Your task to perform on an android device: When is my next appointment? Image 0: 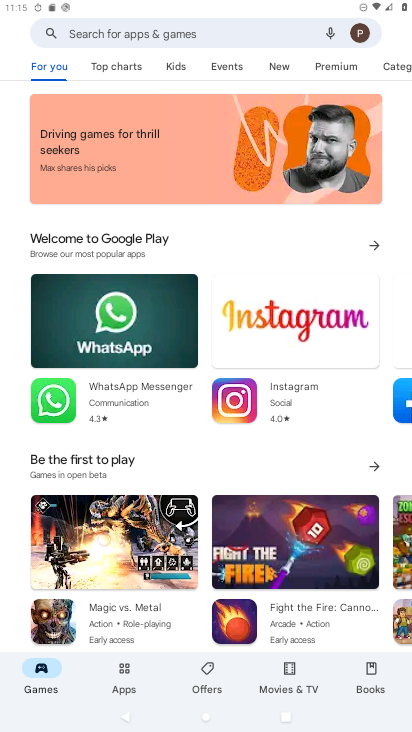
Step 0: press home button
Your task to perform on an android device: When is my next appointment? Image 1: 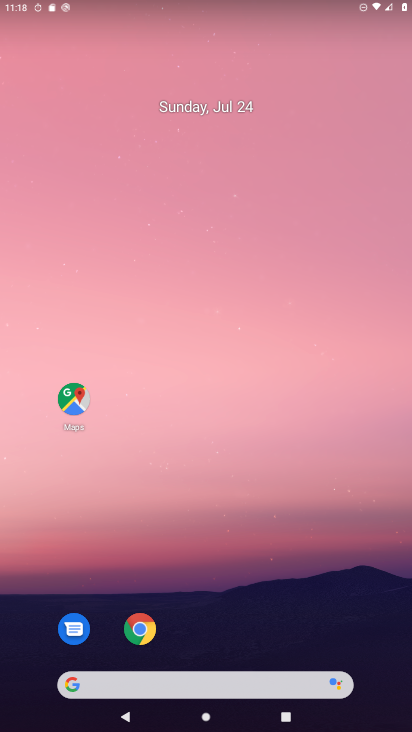
Step 1: drag from (247, 606) to (284, 79)
Your task to perform on an android device: When is my next appointment? Image 2: 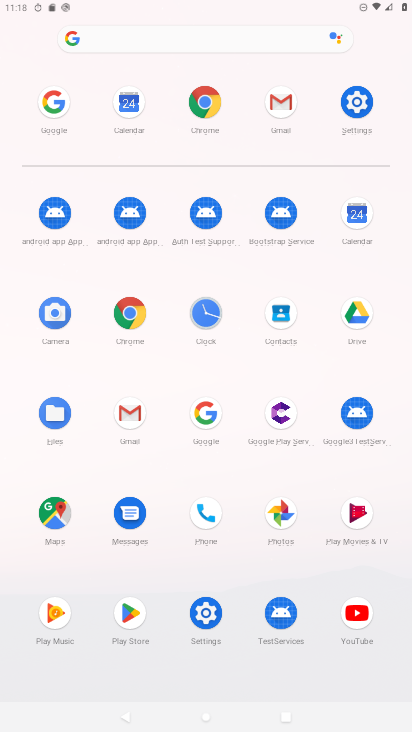
Step 2: click (360, 229)
Your task to perform on an android device: When is my next appointment? Image 3: 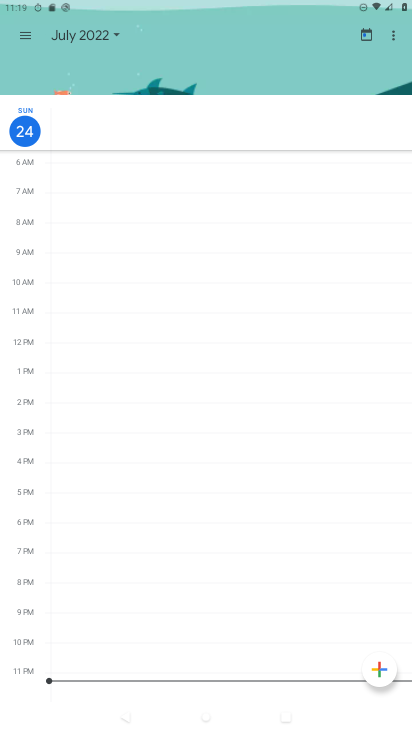
Step 3: click (25, 36)
Your task to perform on an android device: When is my next appointment? Image 4: 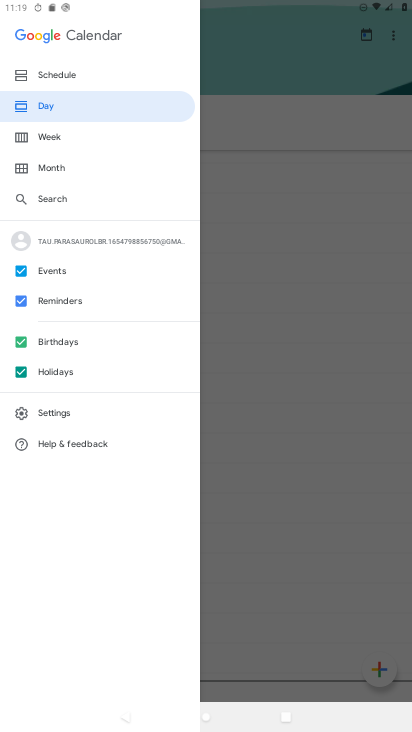
Step 4: click (73, 75)
Your task to perform on an android device: When is my next appointment? Image 5: 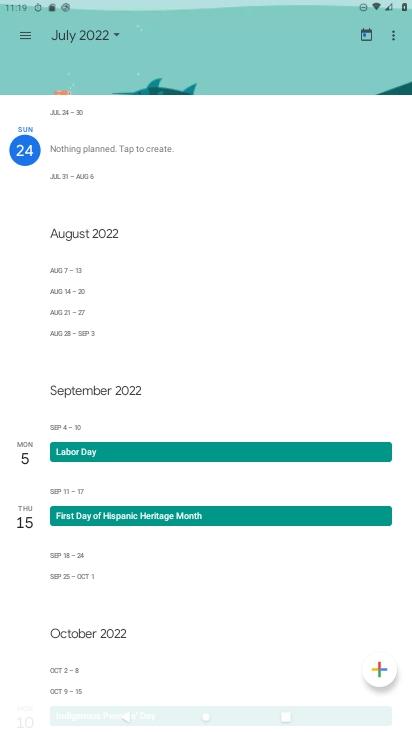
Step 5: click (18, 35)
Your task to perform on an android device: When is my next appointment? Image 6: 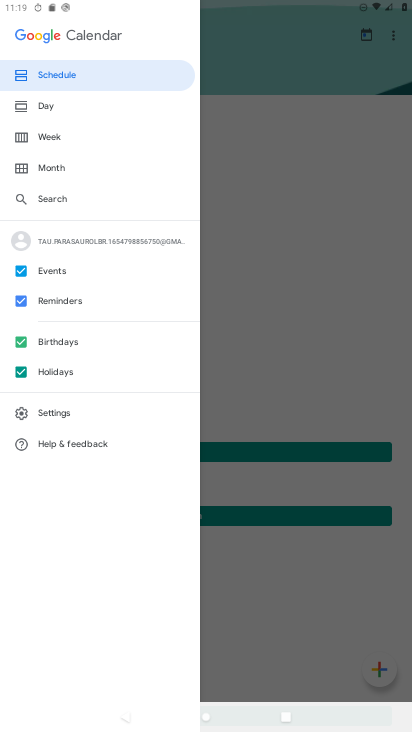
Step 6: click (17, 375)
Your task to perform on an android device: When is my next appointment? Image 7: 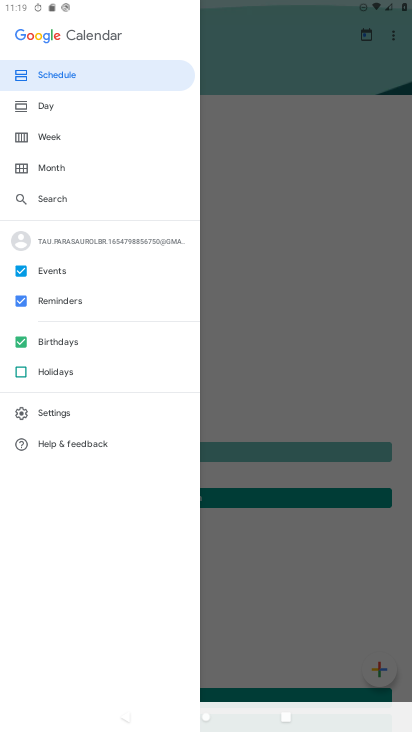
Step 7: click (22, 346)
Your task to perform on an android device: When is my next appointment? Image 8: 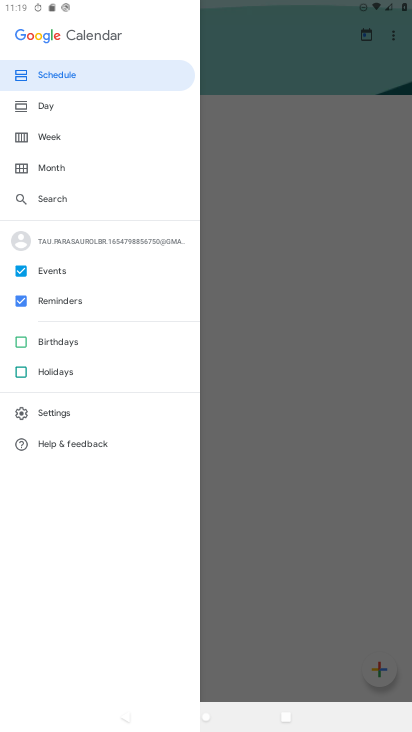
Step 8: click (314, 393)
Your task to perform on an android device: When is my next appointment? Image 9: 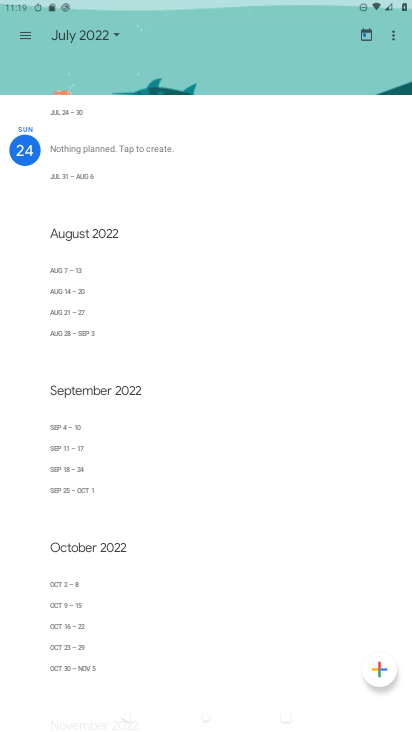
Step 9: task complete